Your task to perform on an android device: Search for seafood restaurants on Google Maps Image 0: 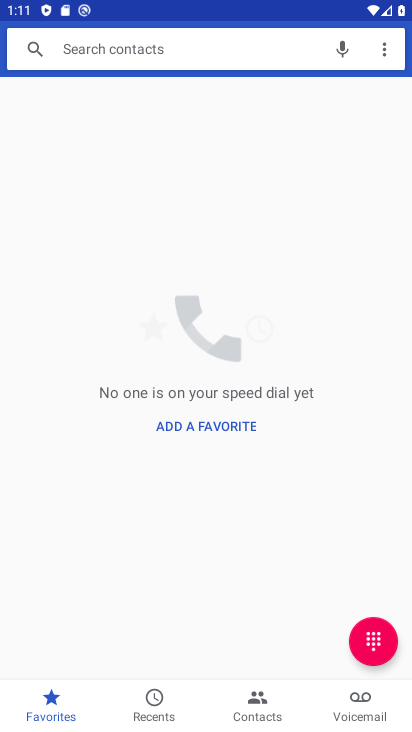
Step 0: press back button
Your task to perform on an android device: Search for seafood restaurants on Google Maps Image 1: 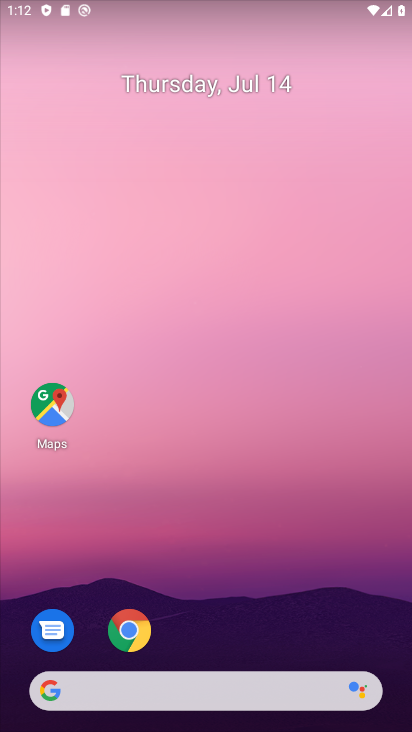
Step 1: click (57, 411)
Your task to perform on an android device: Search for seafood restaurants on Google Maps Image 2: 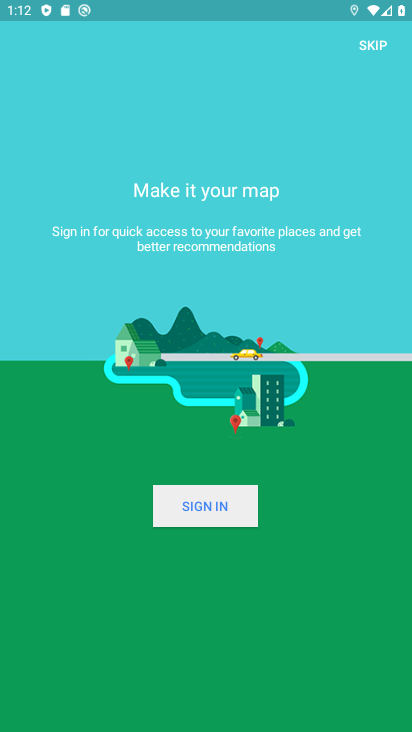
Step 2: click (357, 38)
Your task to perform on an android device: Search for seafood restaurants on Google Maps Image 3: 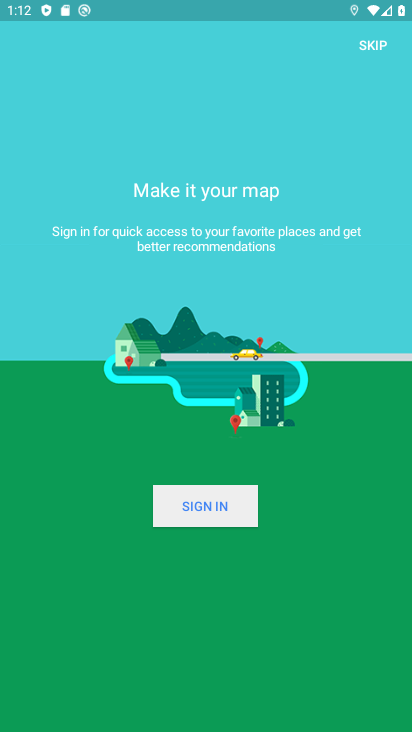
Step 3: click (373, 46)
Your task to perform on an android device: Search for seafood restaurants on Google Maps Image 4: 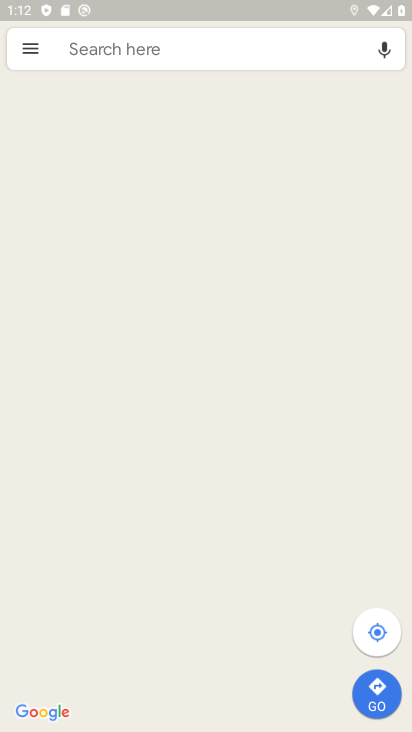
Step 4: click (210, 49)
Your task to perform on an android device: Search for seafood restaurants on Google Maps Image 5: 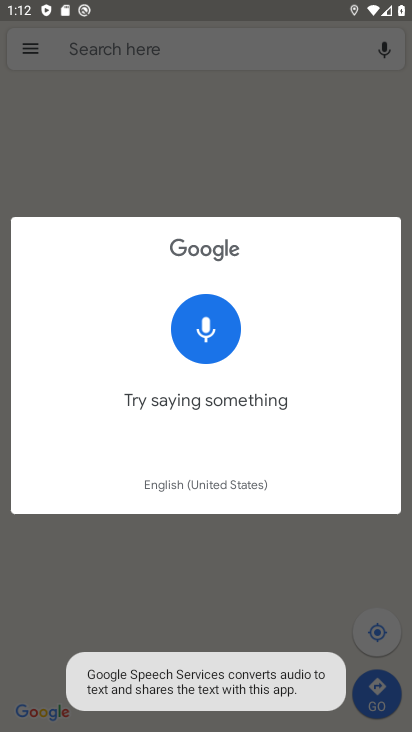
Step 5: click (156, 48)
Your task to perform on an android device: Search for seafood restaurants on Google Maps Image 6: 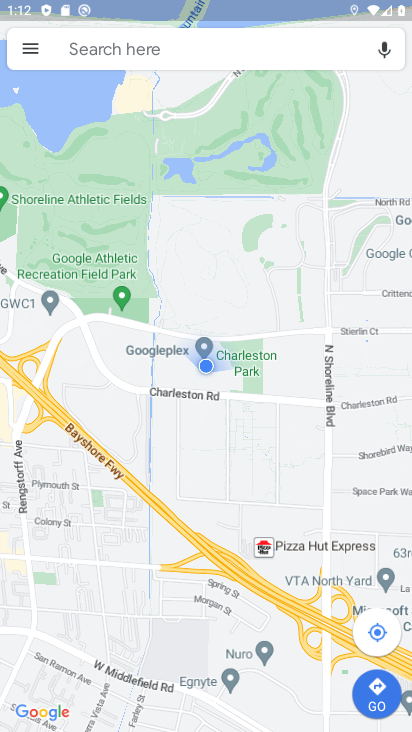
Step 6: click (178, 48)
Your task to perform on an android device: Search for seafood restaurants on Google Maps Image 7: 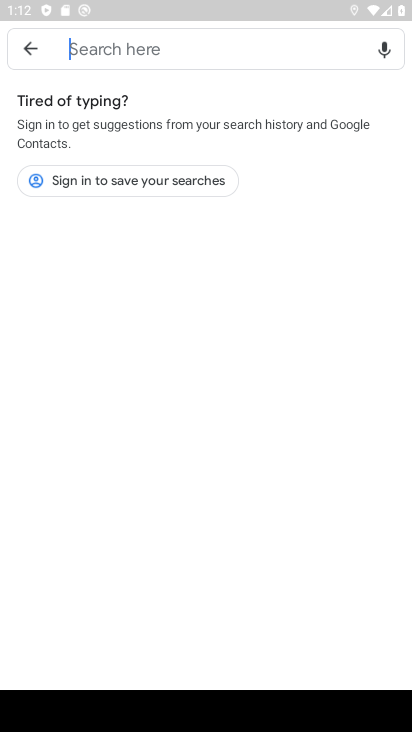
Step 7: type "seafood restaurants"
Your task to perform on an android device: Search for seafood restaurants on Google Maps Image 8: 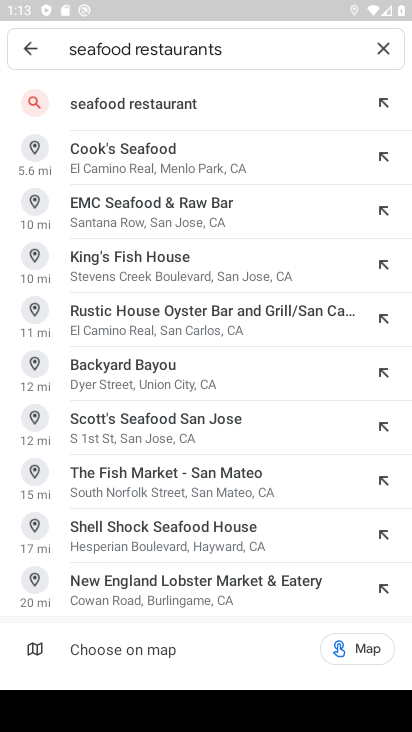
Step 8: click (212, 101)
Your task to perform on an android device: Search for seafood restaurants on Google Maps Image 9: 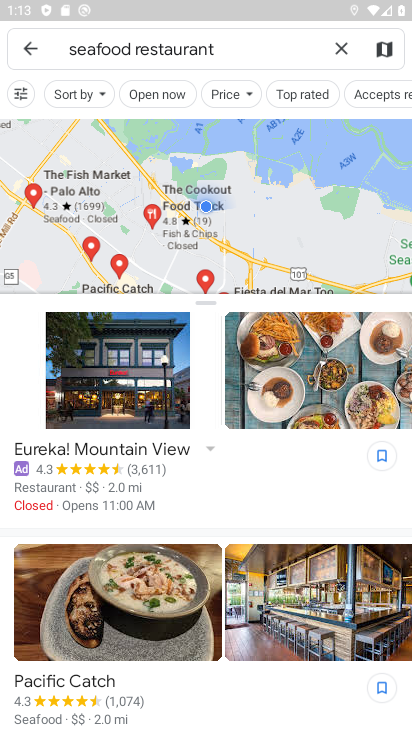
Step 9: task complete